Your task to perform on an android device: Open Google Maps and go to "Timeline" Image 0: 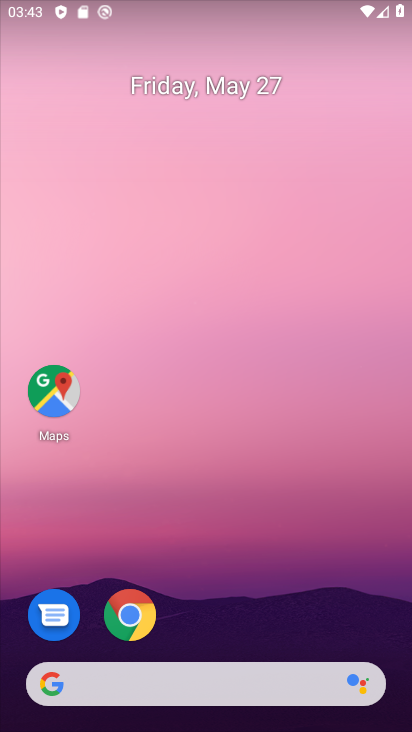
Step 0: click (46, 385)
Your task to perform on an android device: Open Google Maps and go to "Timeline" Image 1: 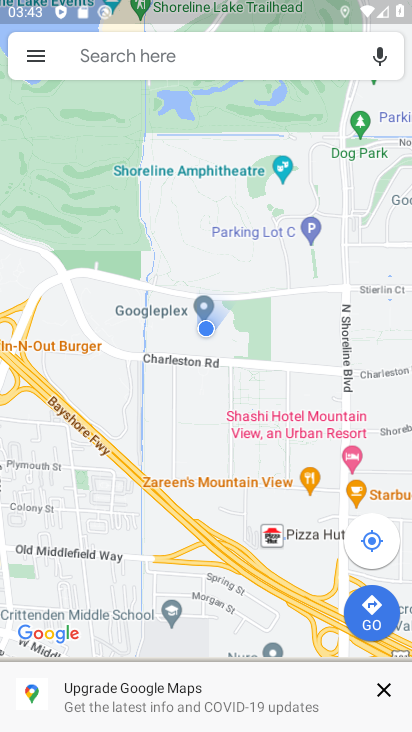
Step 1: click (34, 56)
Your task to perform on an android device: Open Google Maps and go to "Timeline" Image 2: 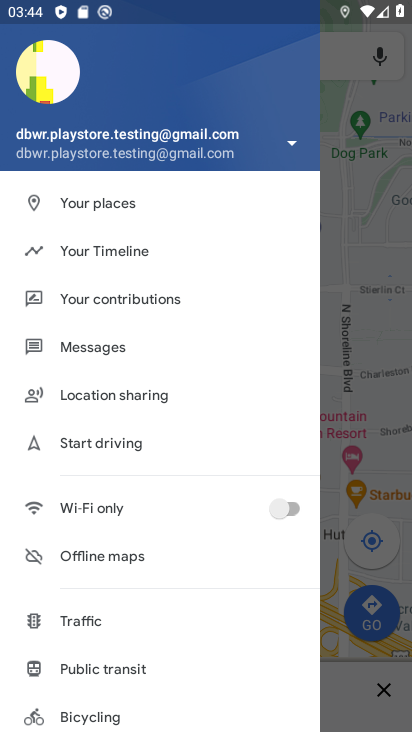
Step 2: click (128, 257)
Your task to perform on an android device: Open Google Maps and go to "Timeline" Image 3: 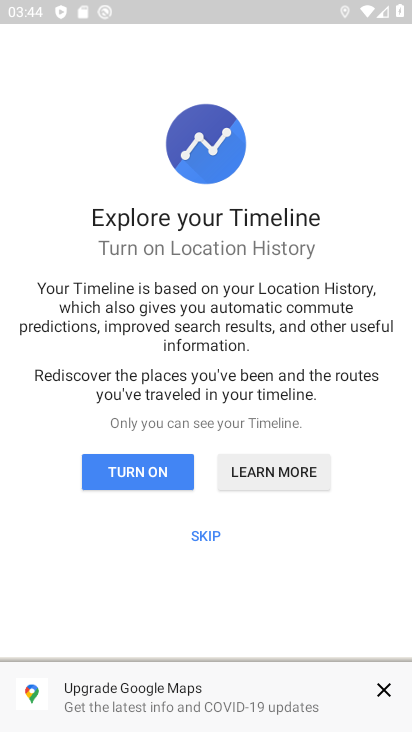
Step 3: click (211, 534)
Your task to perform on an android device: Open Google Maps and go to "Timeline" Image 4: 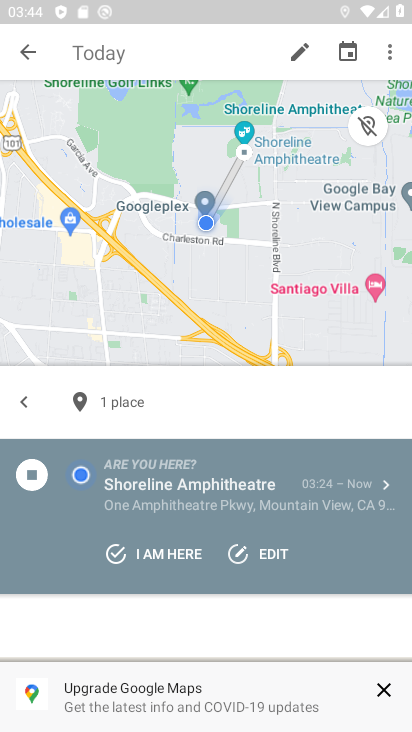
Step 4: click (383, 688)
Your task to perform on an android device: Open Google Maps and go to "Timeline" Image 5: 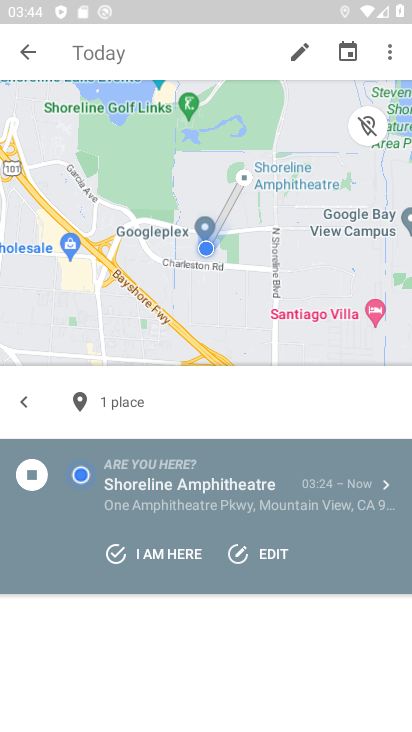
Step 5: task complete